Your task to perform on an android device: install app "Messages" Image 0: 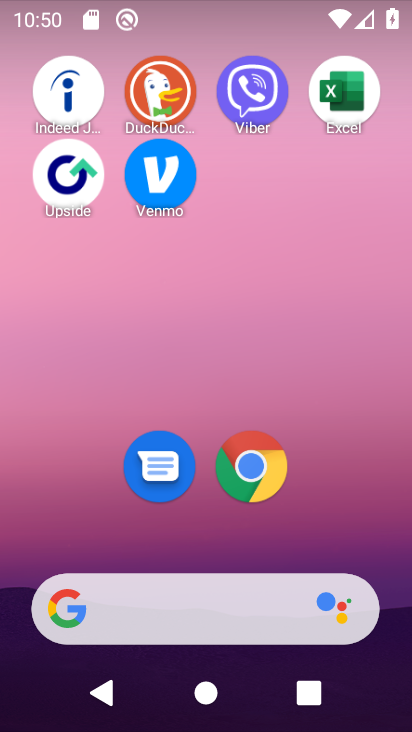
Step 0: drag from (246, 703) to (242, 51)
Your task to perform on an android device: install app "Messages" Image 1: 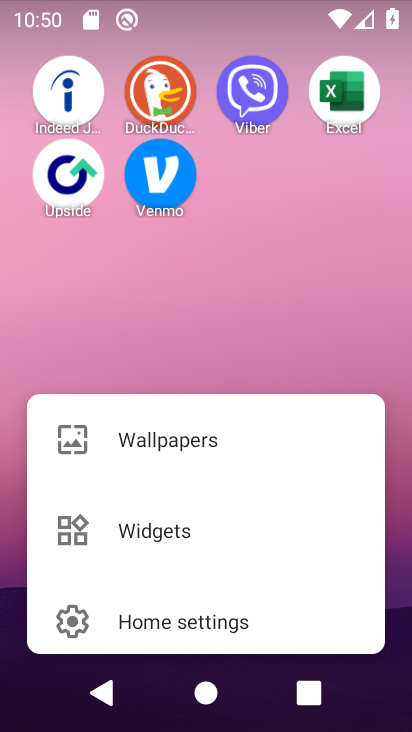
Step 1: press home button
Your task to perform on an android device: install app "Messages" Image 2: 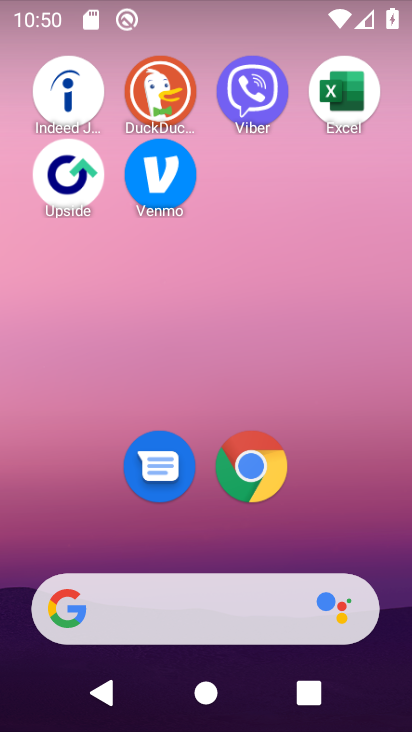
Step 2: drag from (232, 711) to (222, 85)
Your task to perform on an android device: install app "Messages" Image 3: 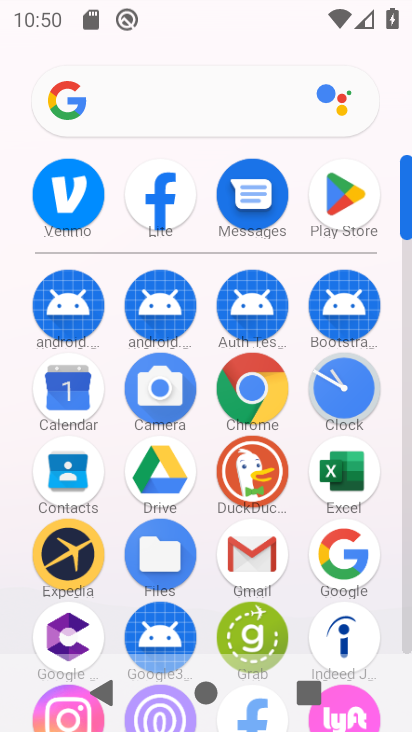
Step 3: click (339, 194)
Your task to perform on an android device: install app "Messages" Image 4: 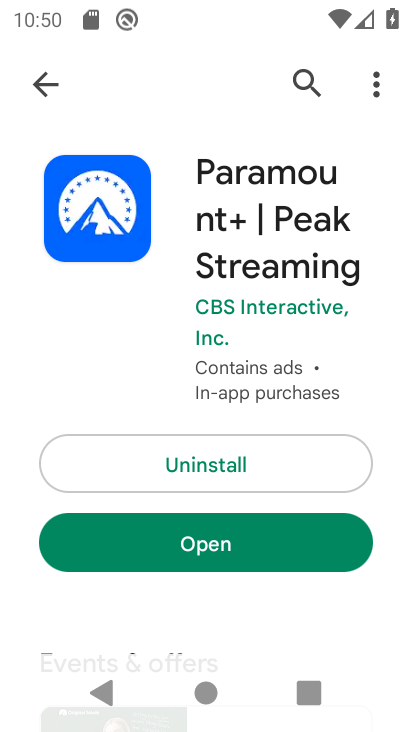
Step 4: click (304, 80)
Your task to perform on an android device: install app "Messages" Image 5: 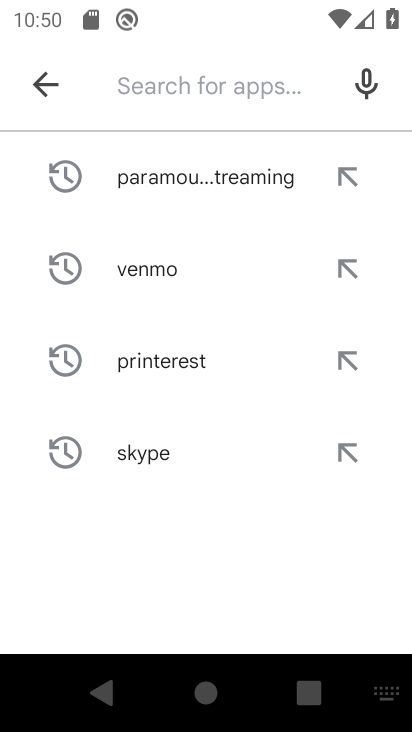
Step 5: type "Messages"
Your task to perform on an android device: install app "Messages" Image 6: 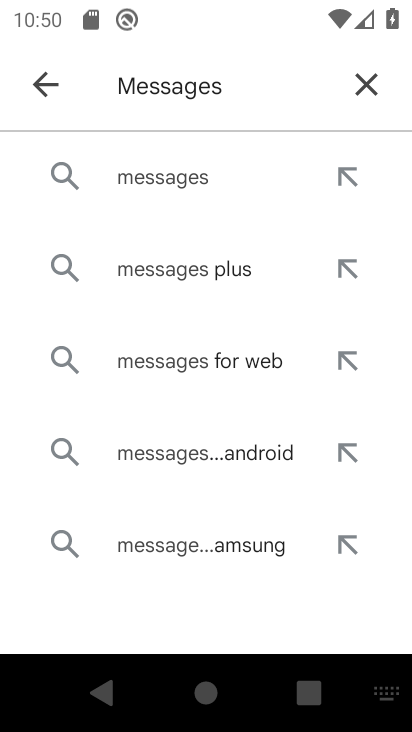
Step 6: click (164, 179)
Your task to perform on an android device: install app "Messages" Image 7: 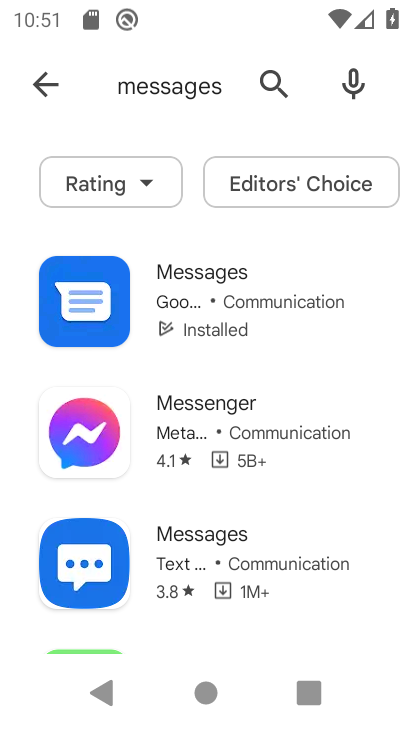
Step 7: click (191, 275)
Your task to perform on an android device: install app "Messages" Image 8: 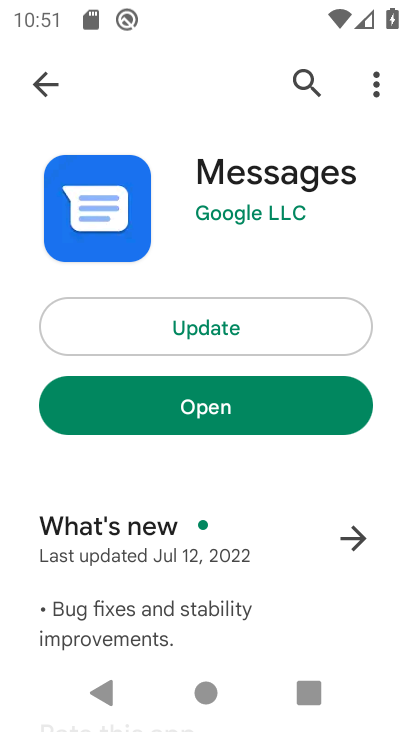
Step 8: task complete